Your task to perform on an android device: Open accessibility settings Image 0: 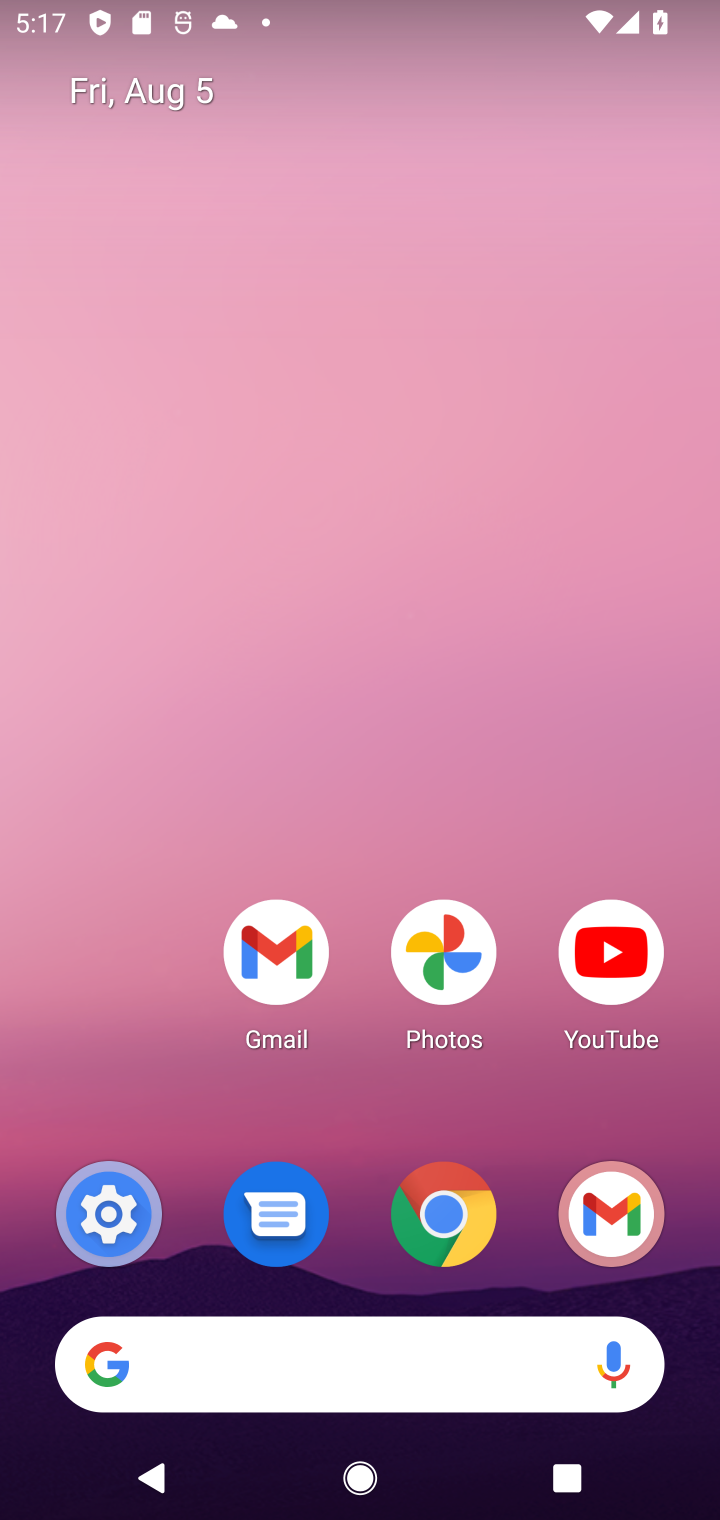
Step 0: click (126, 1218)
Your task to perform on an android device: Open accessibility settings Image 1: 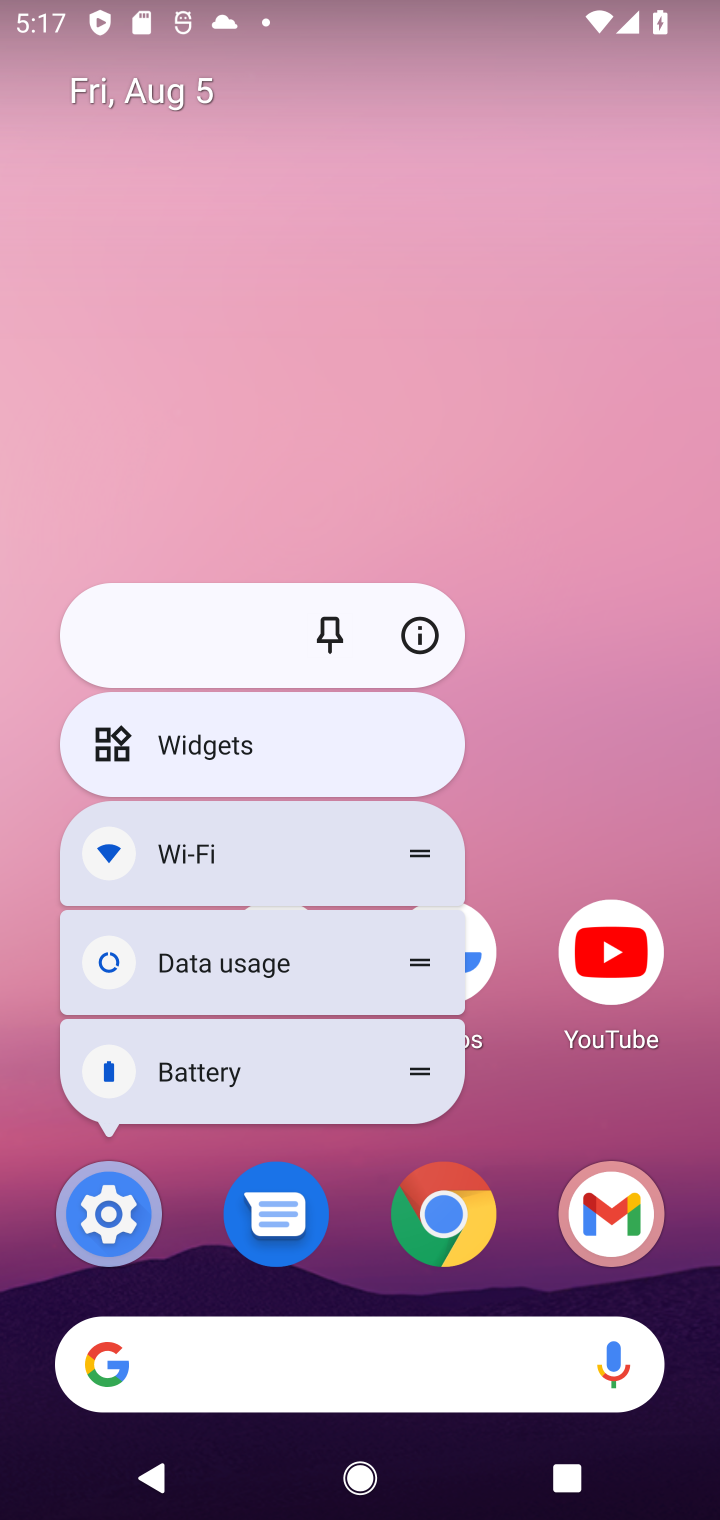
Step 1: click (116, 1209)
Your task to perform on an android device: Open accessibility settings Image 2: 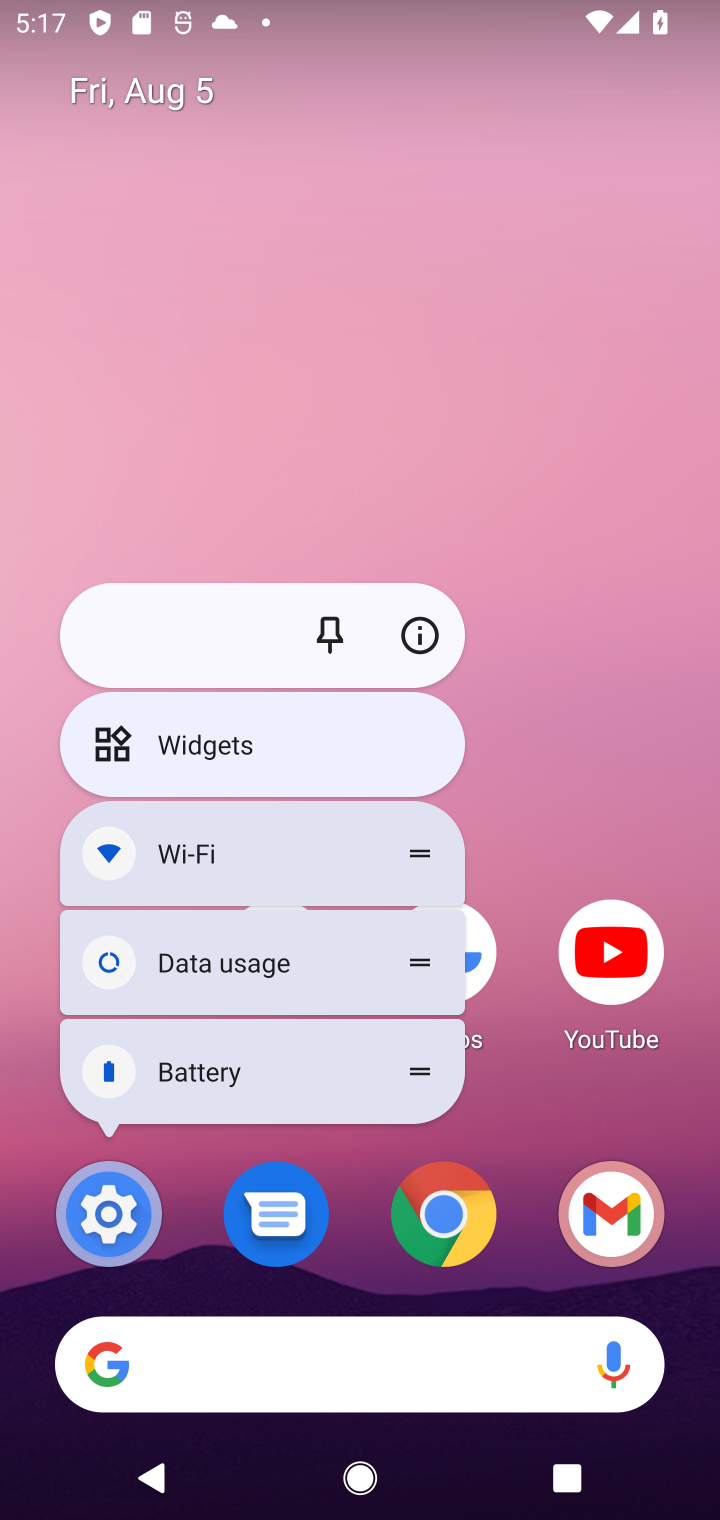
Step 2: click (95, 1241)
Your task to perform on an android device: Open accessibility settings Image 3: 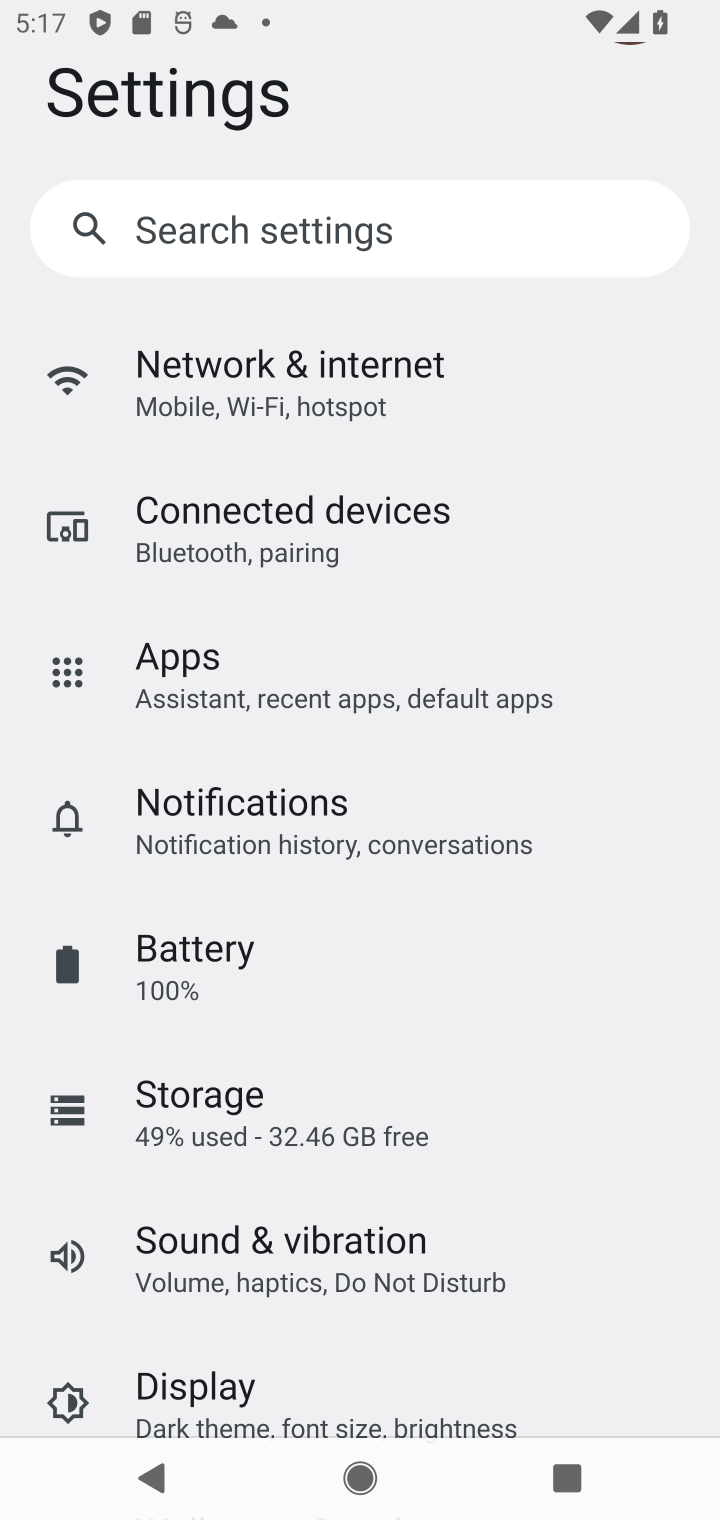
Step 3: drag from (558, 1211) to (576, 3)
Your task to perform on an android device: Open accessibility settings Image 4: 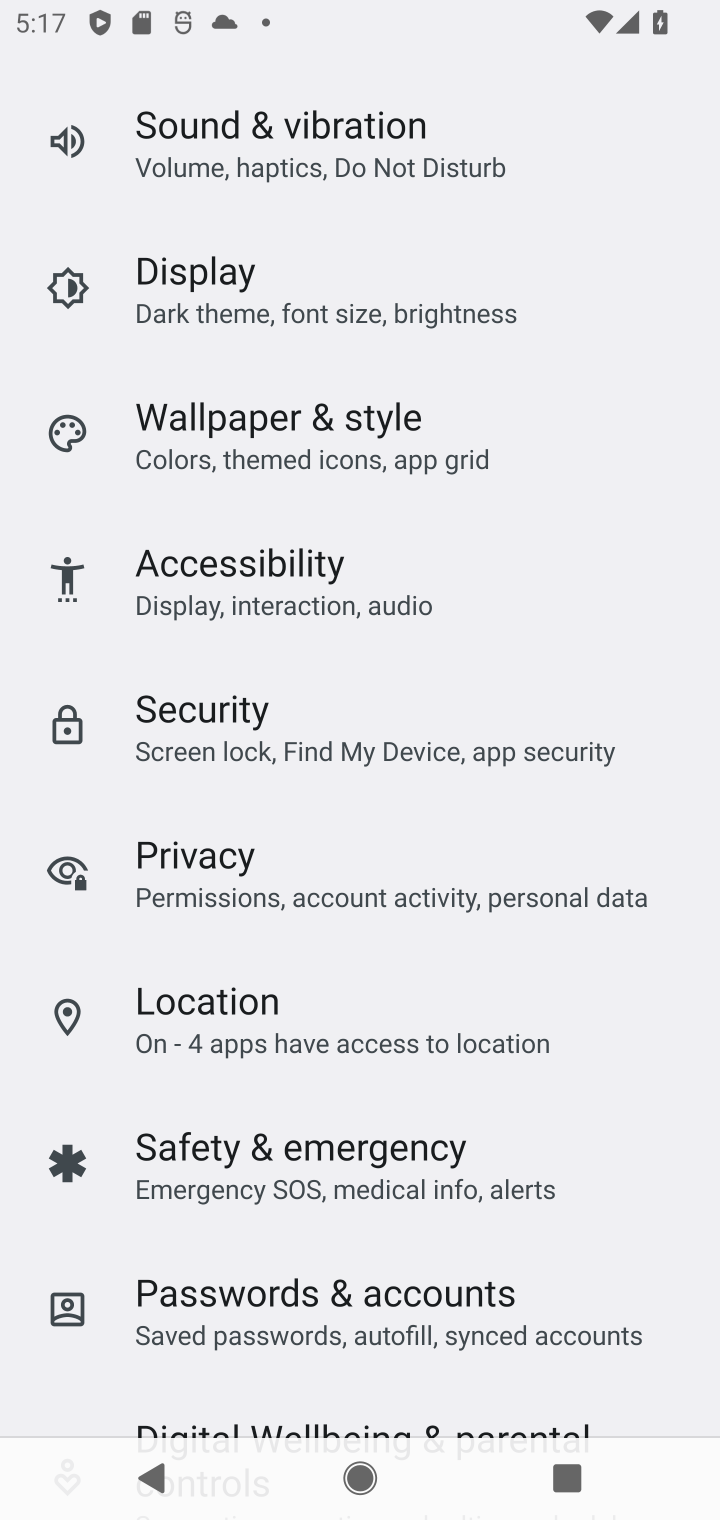
Step 4: click (312, 566)
Your task to perform on an android device: Open accessibility settings Image 5: 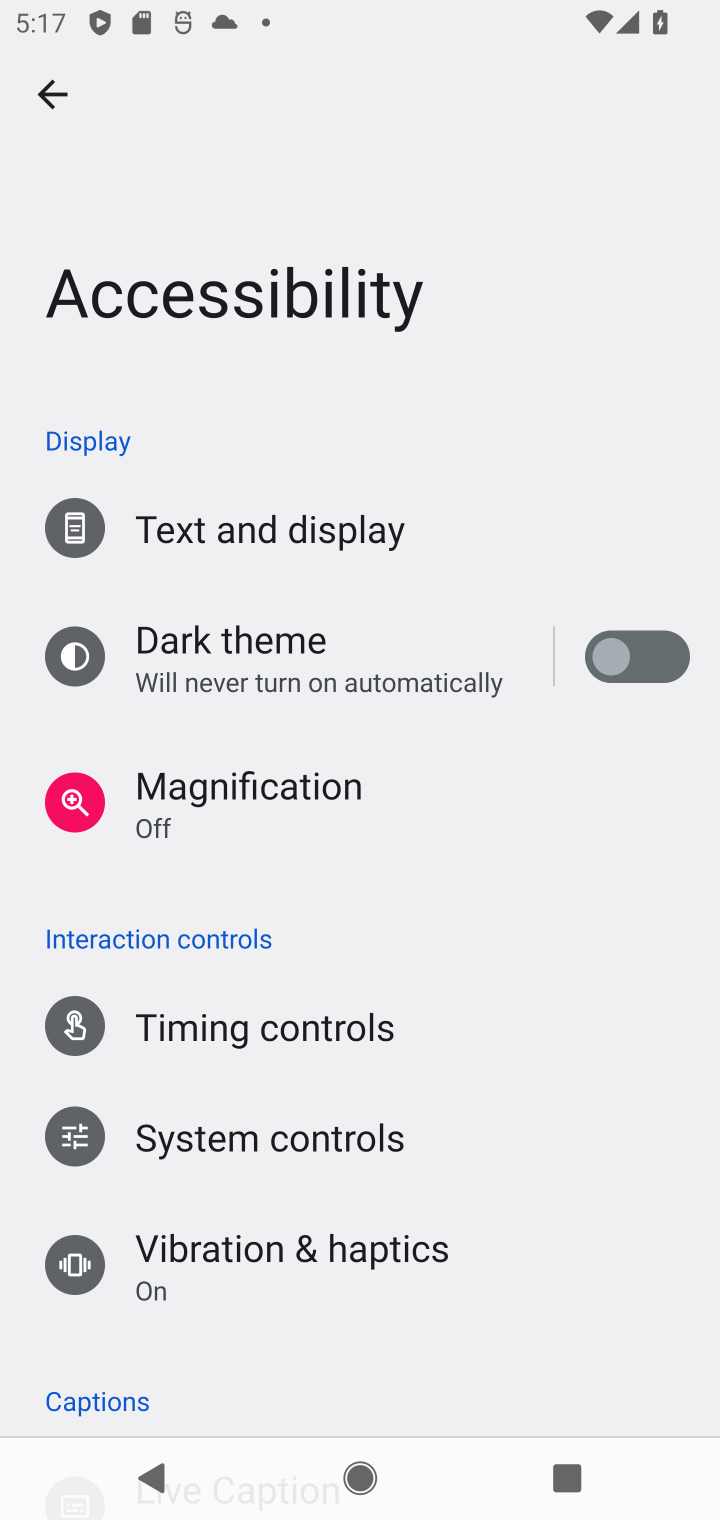
Step 5: task complete